Your task to perform on an android device: turn on showing notifications on the lock screen Image 0: 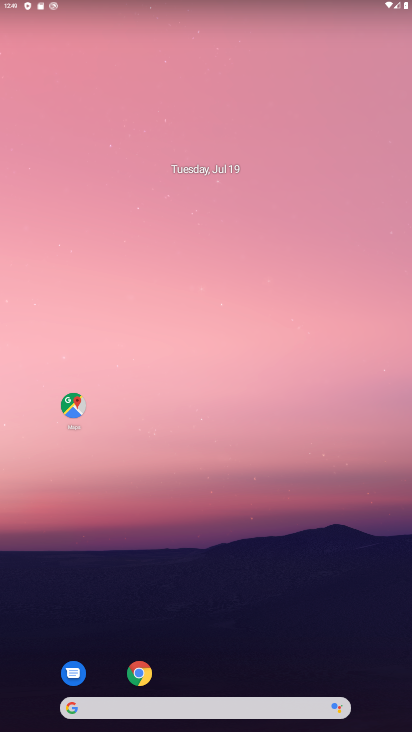
Step 0: drag from (186, 685) to (247, 13)
Your task to perform on an android device: turn on showing notifications on the lock screen Image 1: 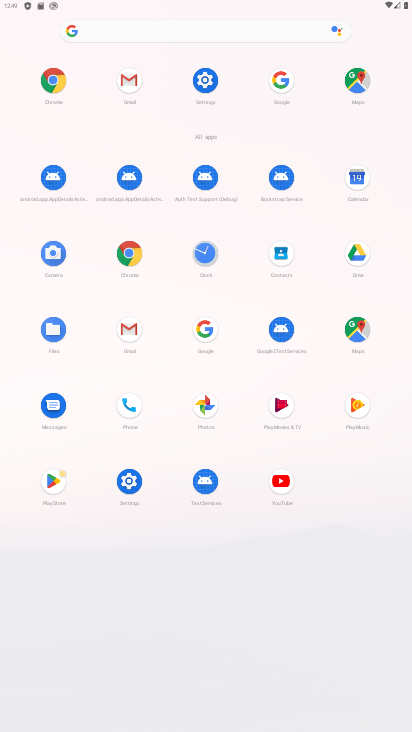
Step 1: click (138, 472)
Your task to perform on an android device: turn on showing notifications on the lock screen Image 2: 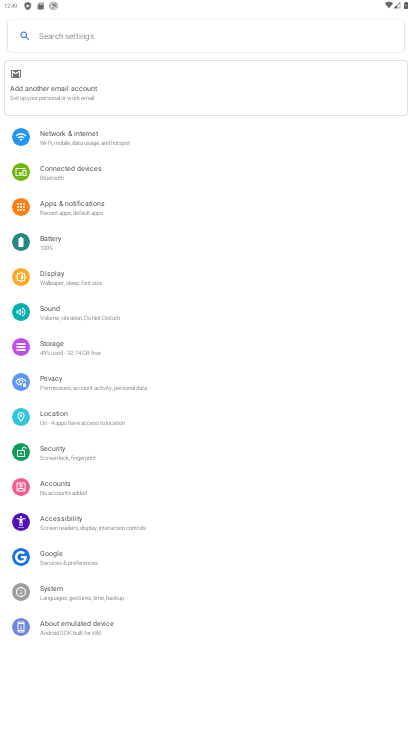
Step 2: click (82, 200)
Your task to perform on an android device: turn on showing notifications on the lock screen Image 3: 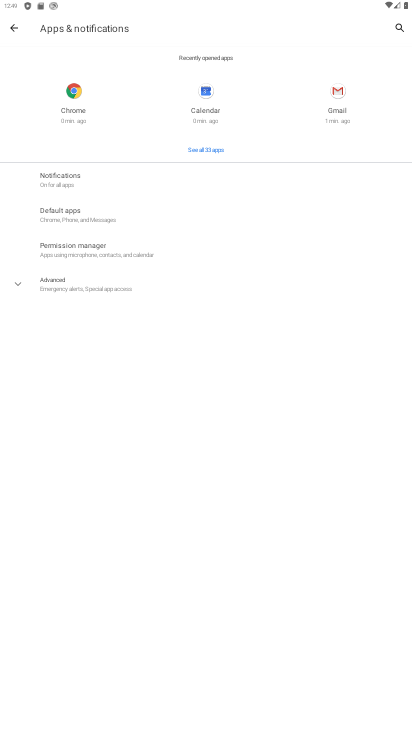
Step 3: click (73, 190)
Your task to perform on an android device: turn on showing notifications on the lock screen Image 4: 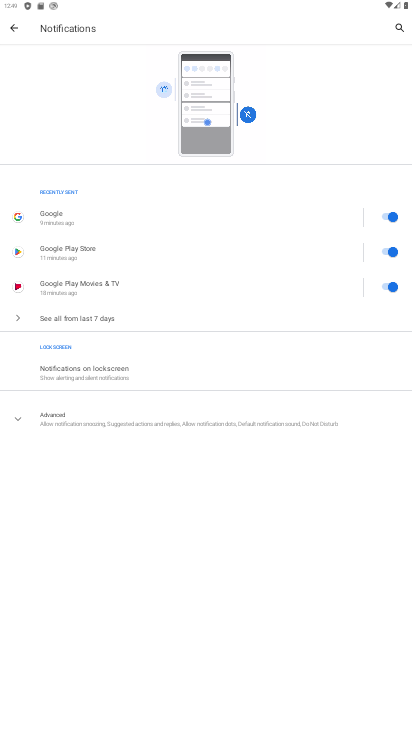
Step 4: click (132, 370)
Your task to perform on an android device: turn on showing notifications on the lock screen Image 5: 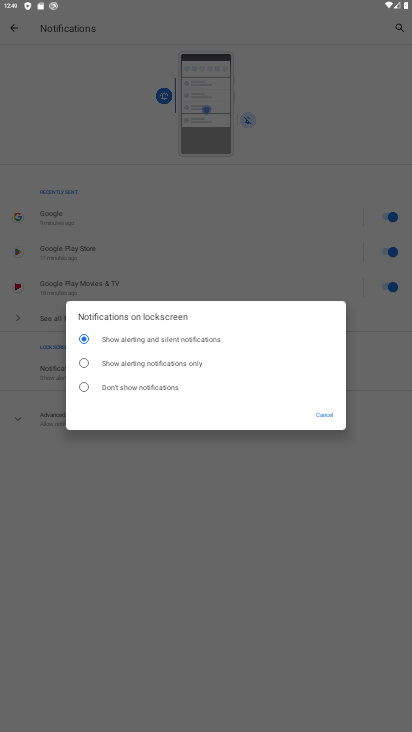
Step 5: click (125, 329)
Your task to perform on an android device: turn on showing notifications on the lock screen Image 6: 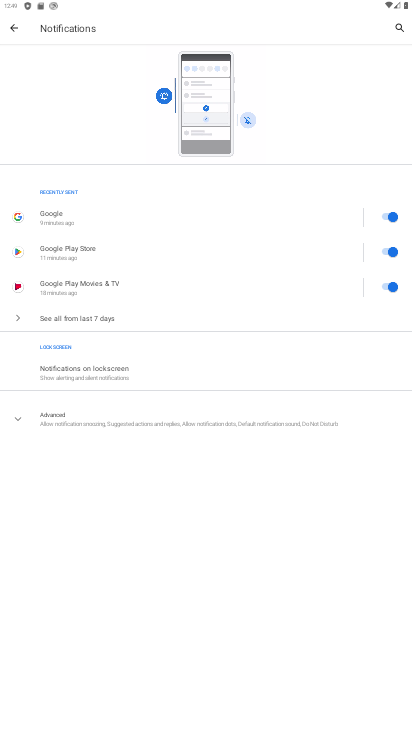
Step 6: task complete